Your task to perform on an android device: turn off sleep mode Image 0: 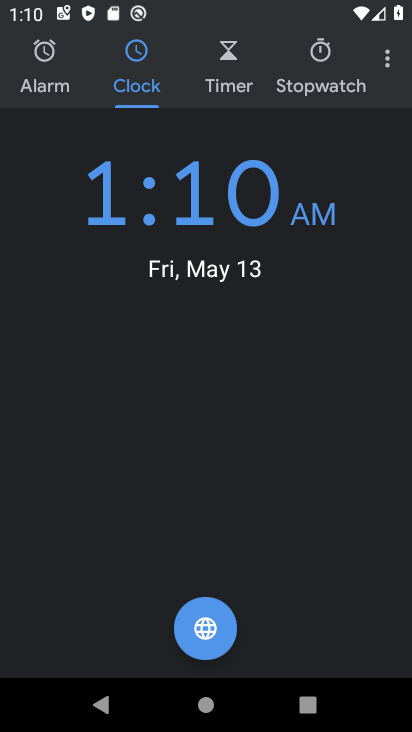
Step 0: press home button
Your task to perform on an android device: turn off sleep mode Image 1: 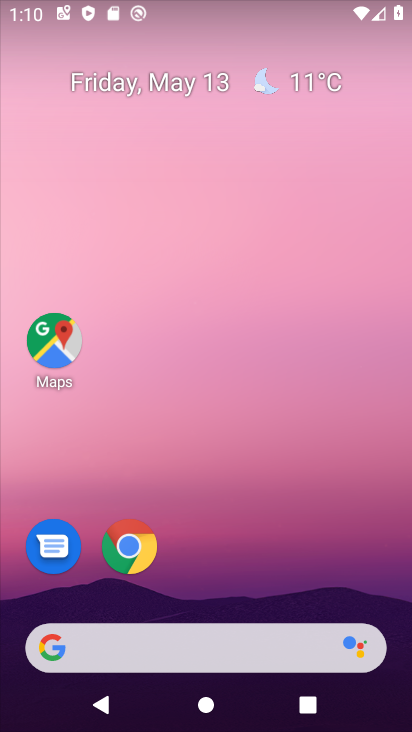
Step 1: drag from (246, 645) to (248, 434)
Your task to perform on an android device: turn off sleep mode Image 2: 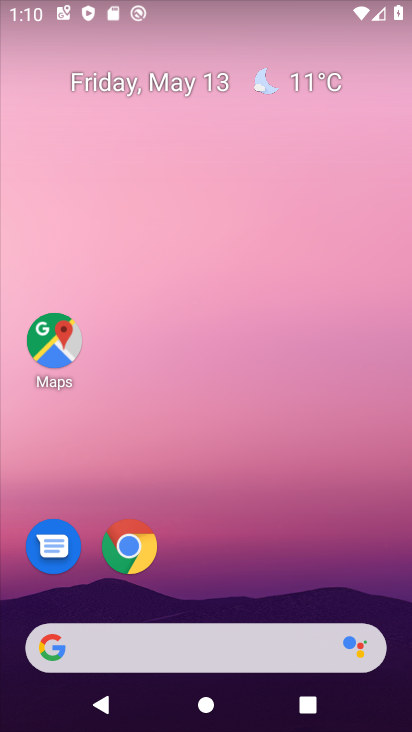
Step 2: drag from (197, 665) to (262, 337)
Your task to perform on an android device: turn off sleep mode Image 3: 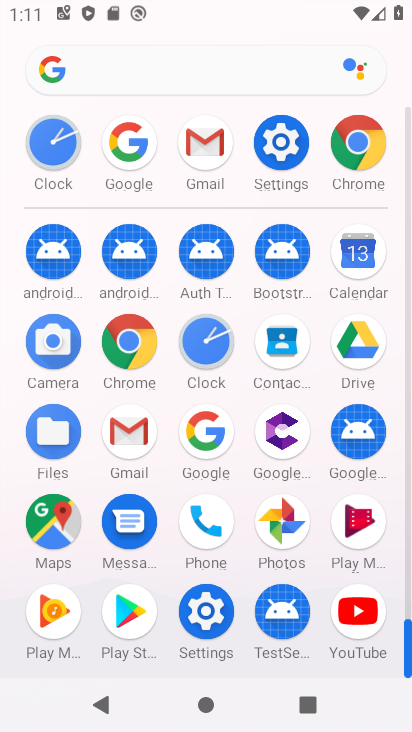
Step 3: click (284, 157)
Your task to perform on an android device: turn off sleep mode Image 4: 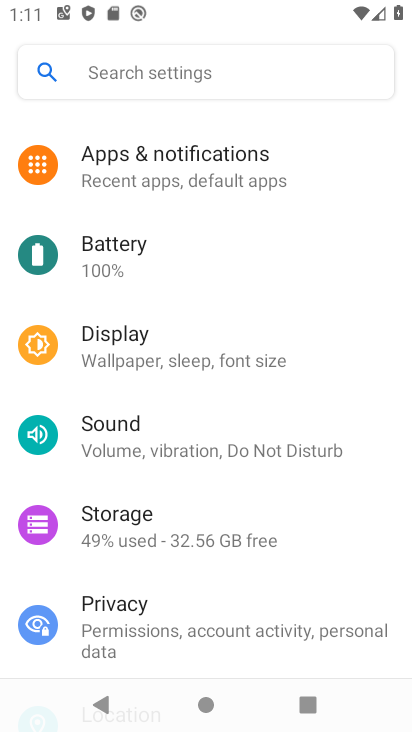
Step 4: click (187, 363)
Your task to perform on an android device: turn off sleep mode Image 5: 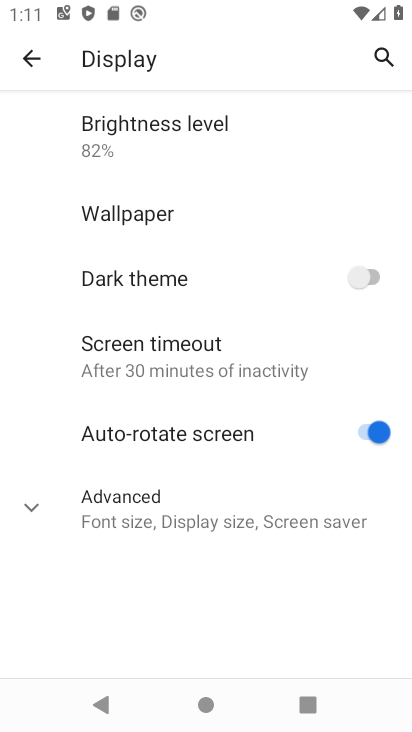
Step 5: click (219, 525)
Your task to perform on an android device: turn off sleep mode Image 6: 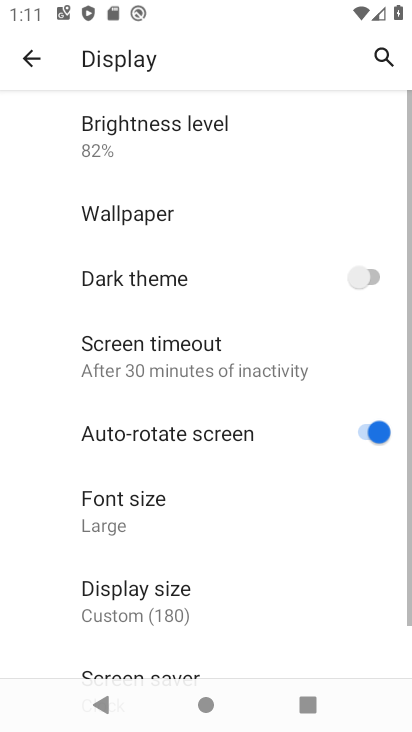
Step 6: task complete